Your task to perform on an android device: Go to Maps Image 0: 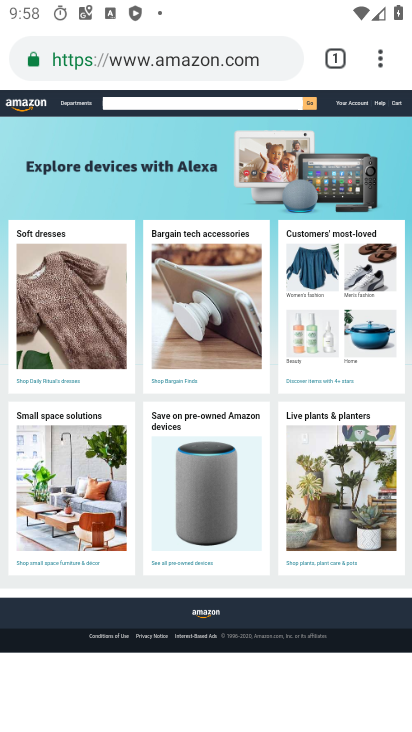
Step 0: press home button
Your task to perform on an android device: Go to Maps Image 1: 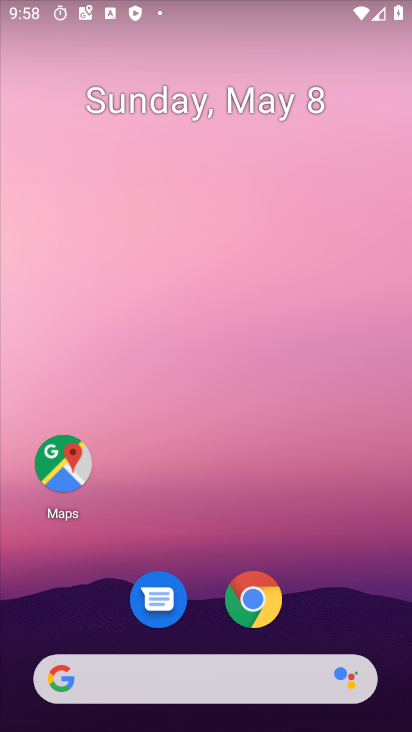
Step 1: drag from (299, 590) to (268, 65)
Your task to perform on an android device: Go to Maps Image 2: 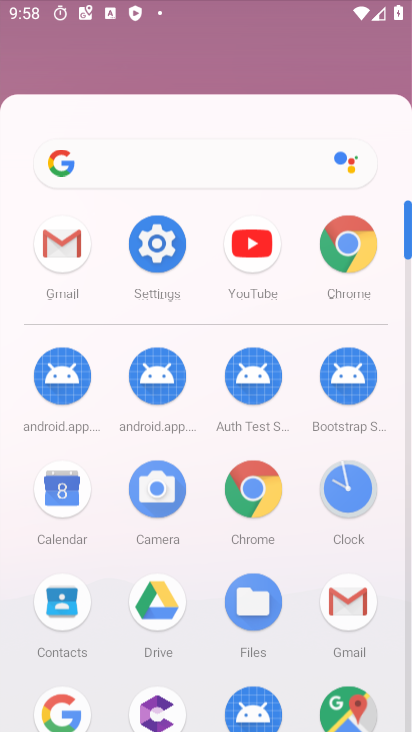
Step 2: click (268, 65)
Your task to perform on an android device: Go to Maps Image 3: 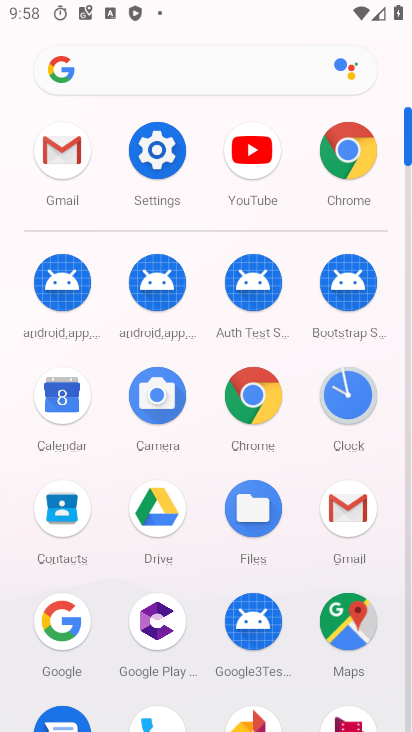
Step 3: click (354, 604)
Your task to perform on an android device: Go to Maps Image 4: 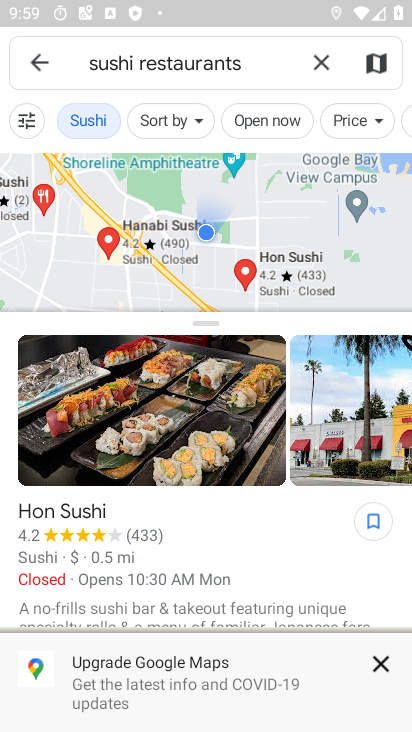
Step 4: task complete